Your task to perform on an android device: check battery use Image 0: 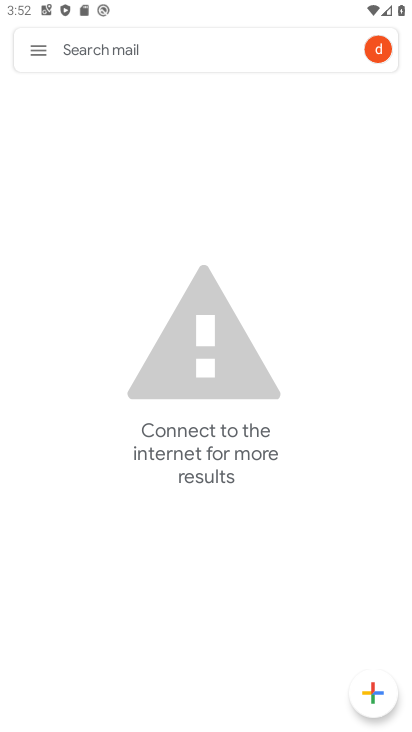
Step 0: press home button
Your task to perform on an android device: check battery use Image 1: 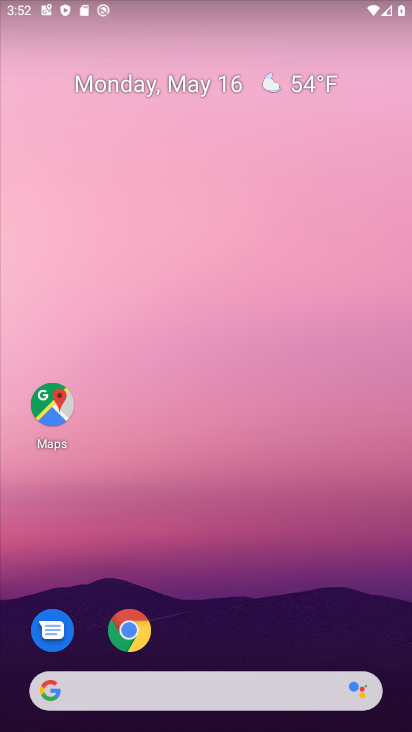
Step 1: drag from (233, 632) to (200, 148)
Your task to perform on an android device: check battery use Image 2: 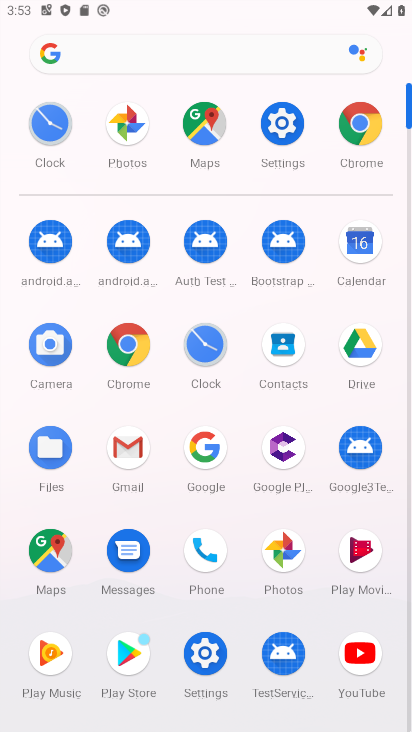
Step 2: click (246, 190)
Your task to perform on an android device: check battery use Image 3: 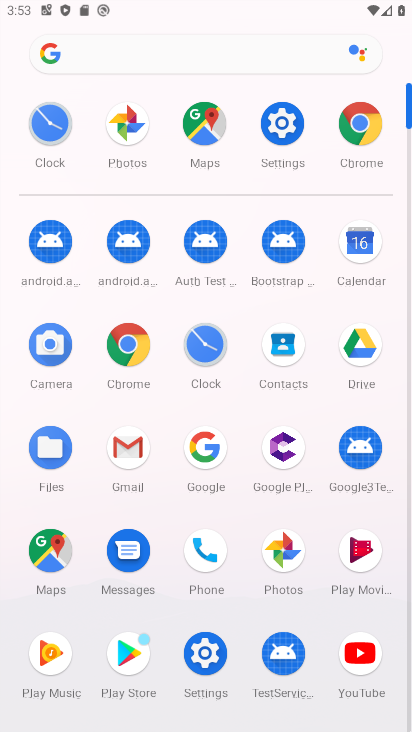
Step 3: click (288, 137)
Your task to perform on an android device: check battery use Image 4: 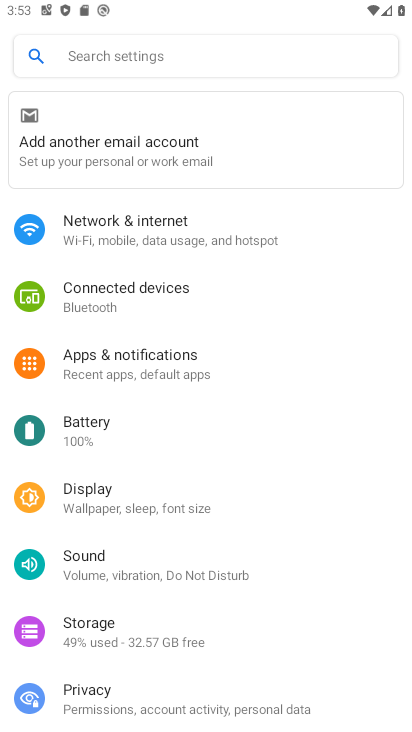
Step 4: click (162, 443)
Your task to perform on an android device: check battery use Image 5: 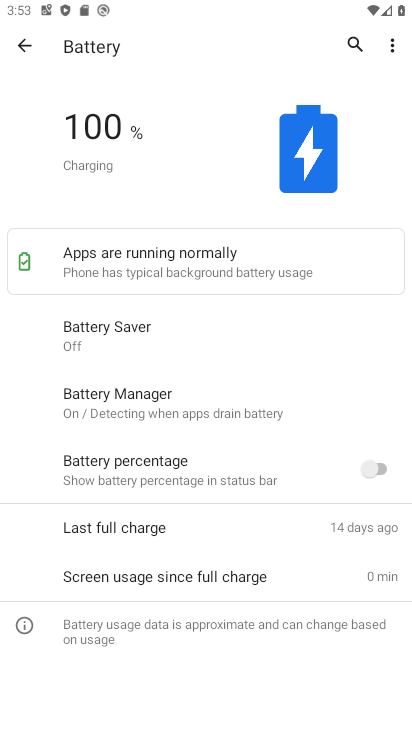
Step 5: task complete